Your task to perform on an android device: When is my next meeting? Image 0: 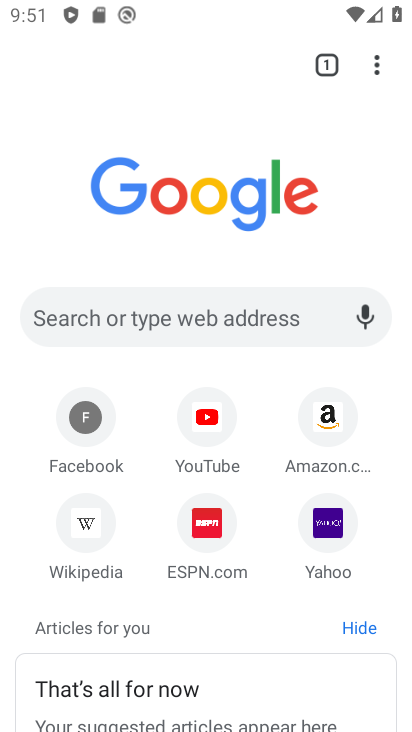
Step 0: press home button
Your task to perform on an android device: When is my next meeting? Image 1: 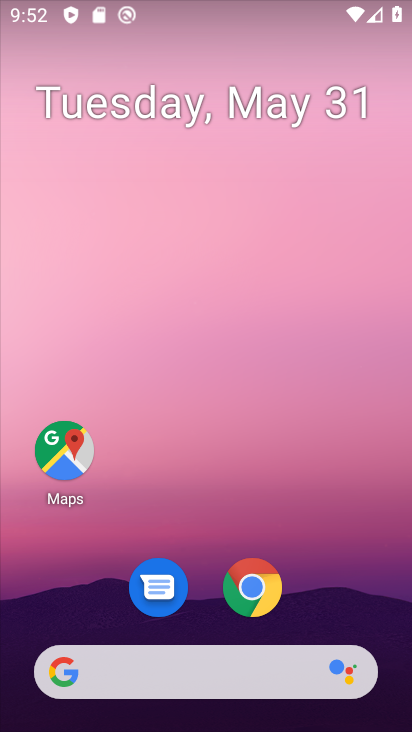
Step 1: drag from (209, 620) to (213, 129)
Your task to perform on an android device: When is my next meeting? Image 2: 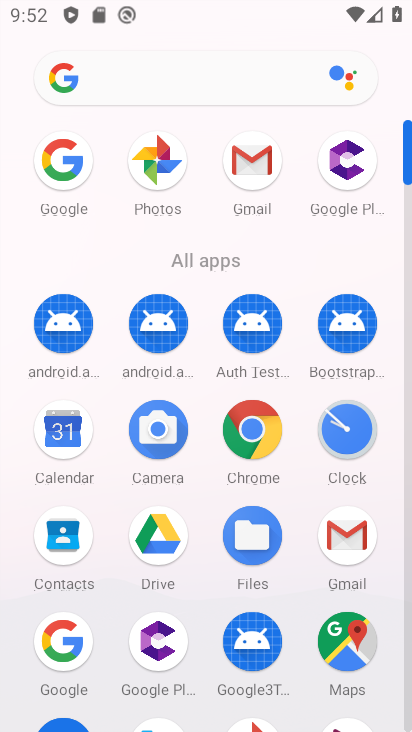
Step 2: click (63, 422)
Your task to perform on an android device: When is my next meeting? Image 3: 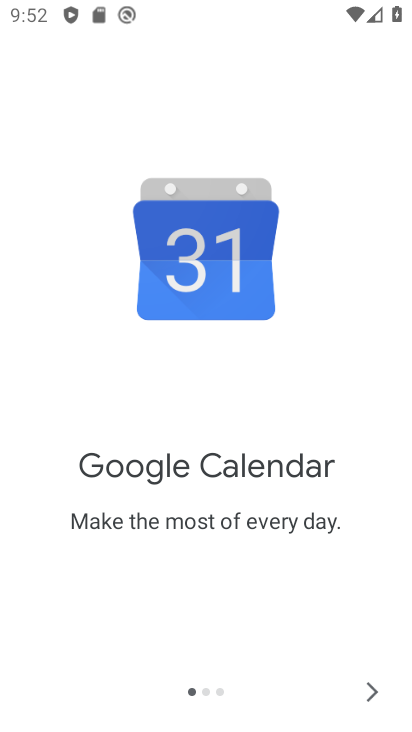
Step 3: click (365, 688)
Your task to perform on an android device: When is my next meeting? Image 4: 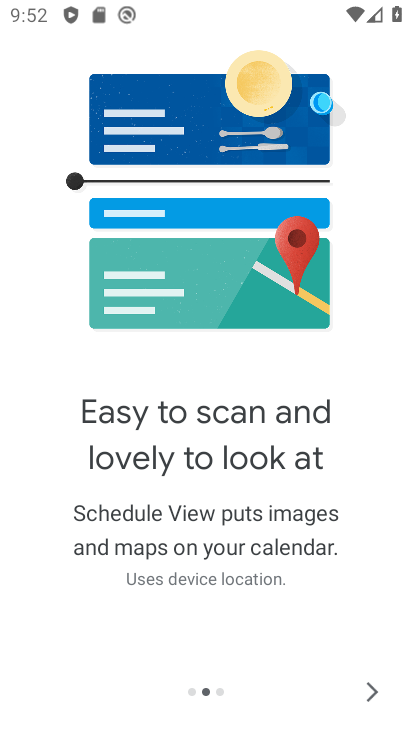
Step 4: click (365, 688)
Your task to perform on an android device: When is my next meeting? Image 5: 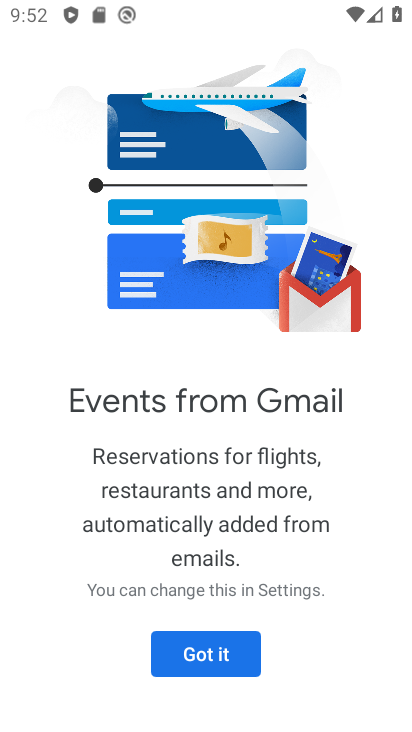
Step 5: click (205, 648)
Your task to perform on an android device: When is my next meeting? Image 6: 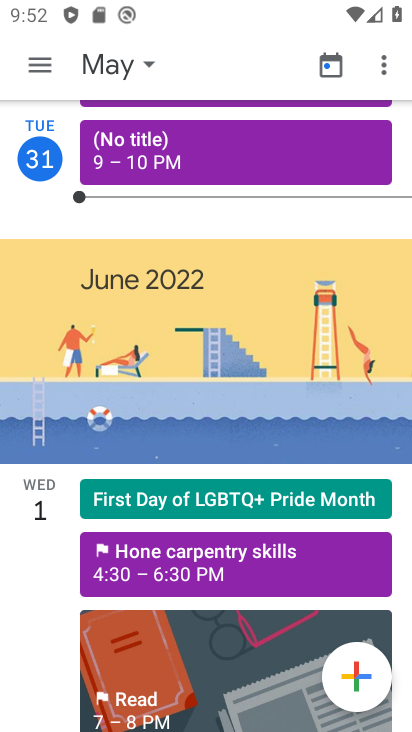
Step 6: task complete